Your task to perform on an android device: Clear all items from cart on newegg. Search for "duracell triple a" on newegg, select the first entry, and add it to the cart. Image 0: 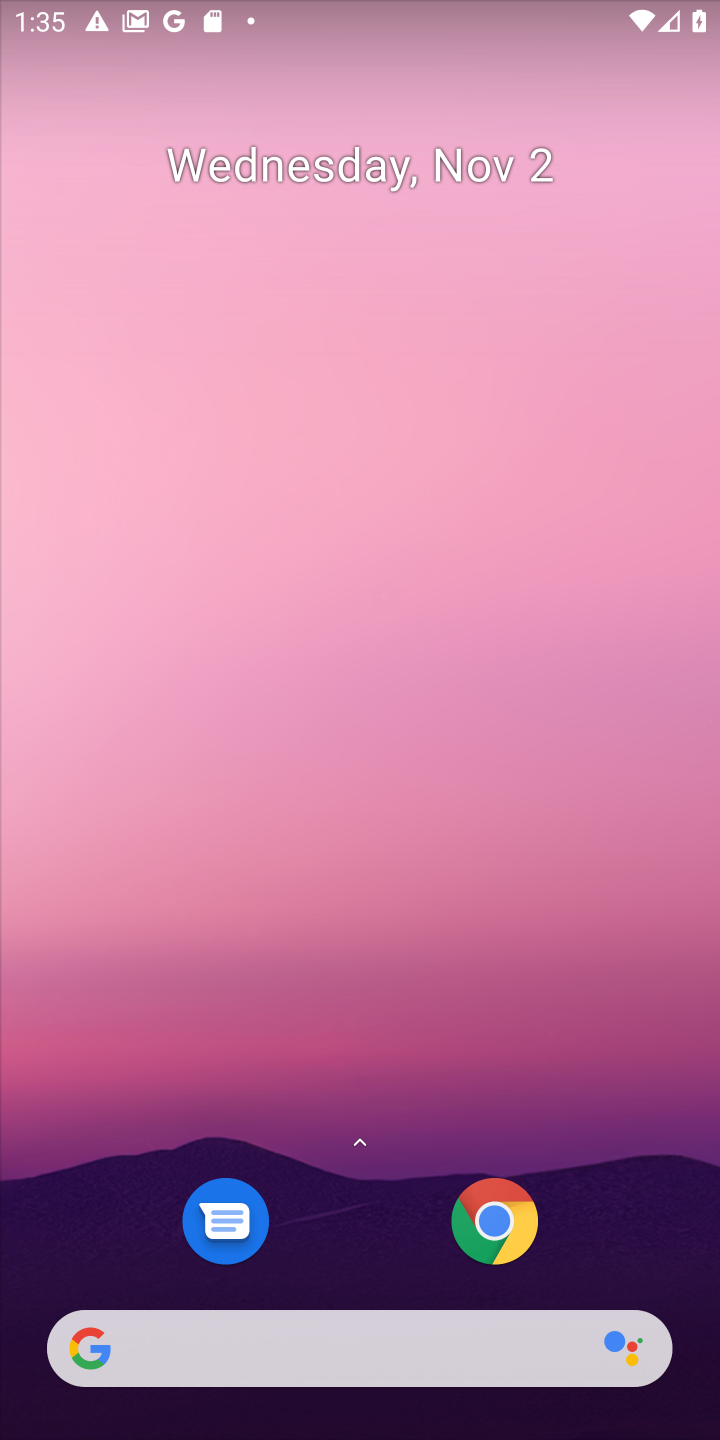
Step 0: click (186, 1357)
Your task to perform on an android device: Clear all items from cart on newegg. Search for "duracell triple a" on newegg, select the first entry, and add it to the cart. Image 1: 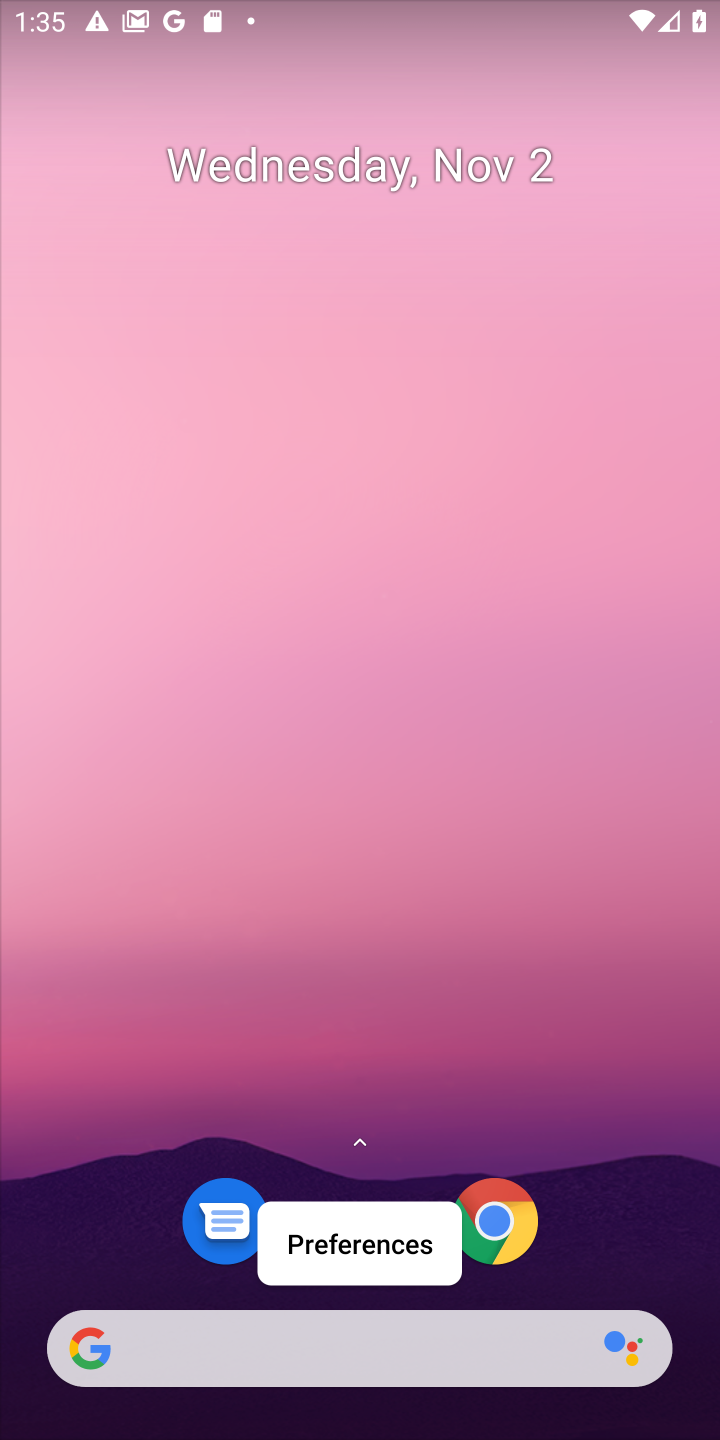
Step 1: click (354, 1342)
Your task to perform on an android device: Clear all items from cart on newegg. Search for "duracell triple a" on newegg, select the first entry, and add it to the cart. Image 2: 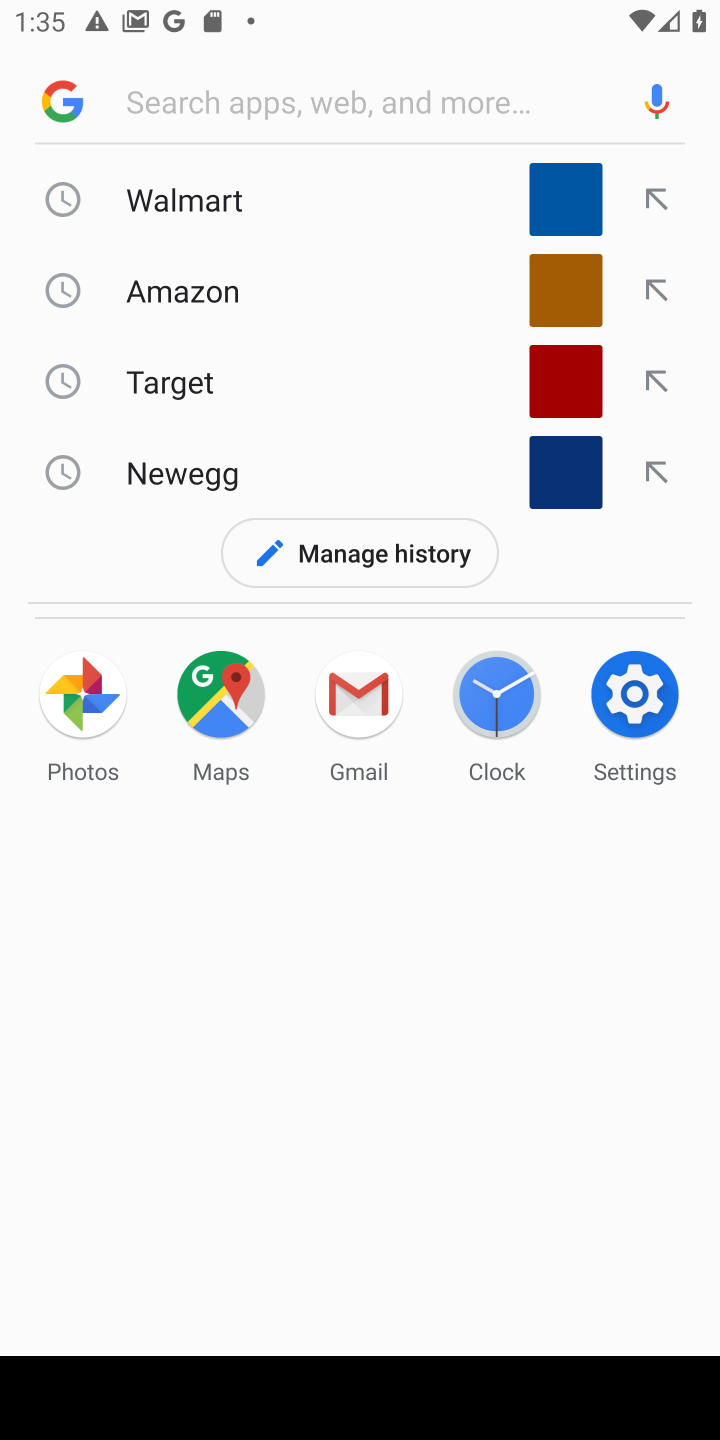
Step 2: click (354, 1342)
Your task to perform on an android device: Clear all items from cart on newegg. Search for "duracell triple a" on newegg, select the first entry, and add it to the cart. Image 3: 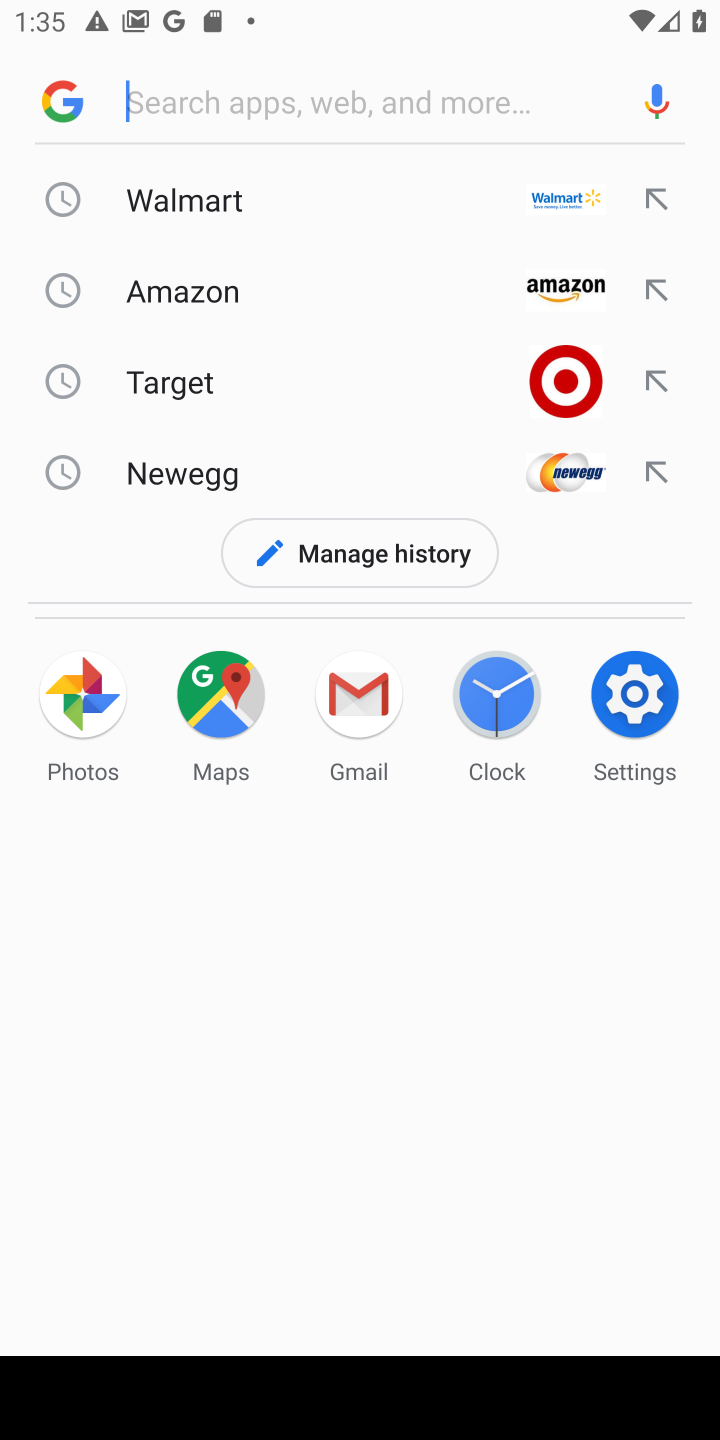
Step 3: click (216, 486)
Your task to perform on an android device: Clear all items from cart on newegg. Search for "duracell triple a" on newegg, select the first entry, and add it to the cart. Image 4: 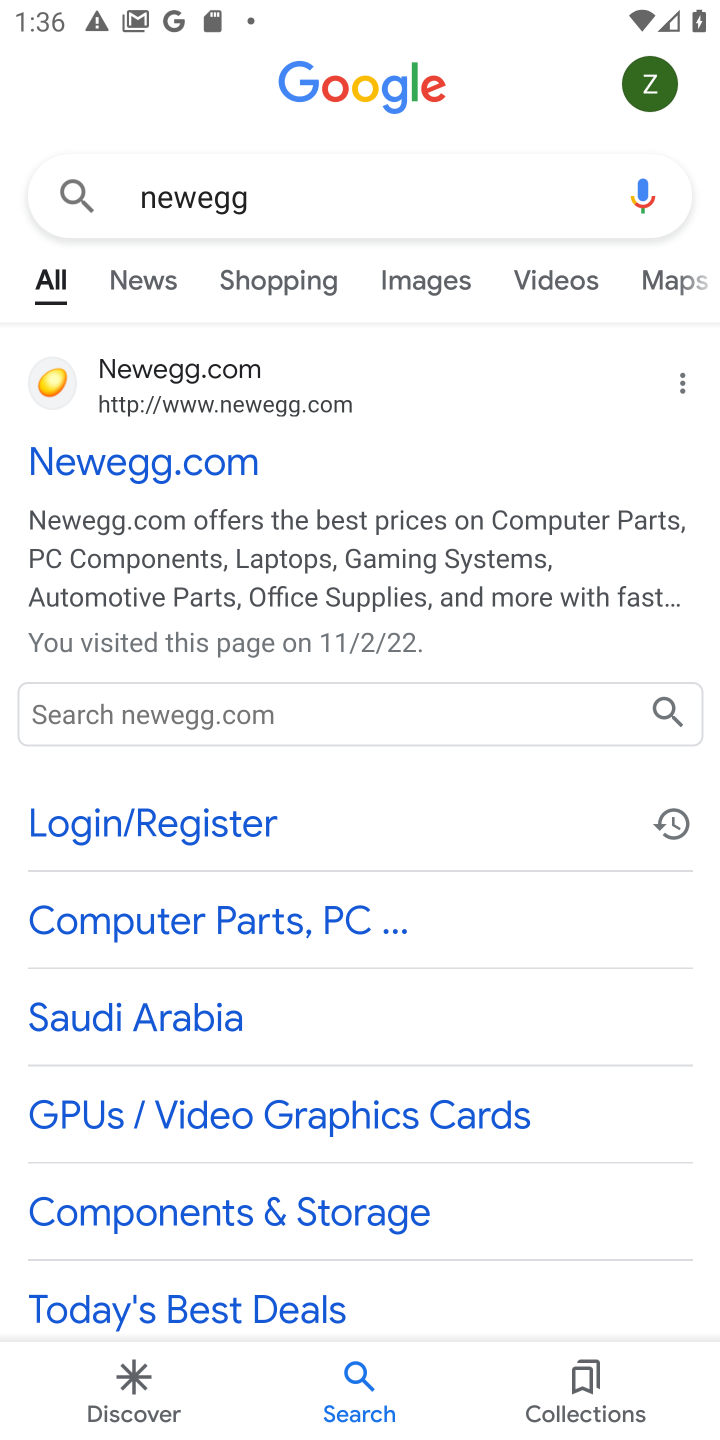
Step 4: click (203, 451)
Your task to perform on an android device: Clear all items from cart on newegg. Search for "duracell triple a" on newegg, select the first entry, and add it to the cart. Image 5: 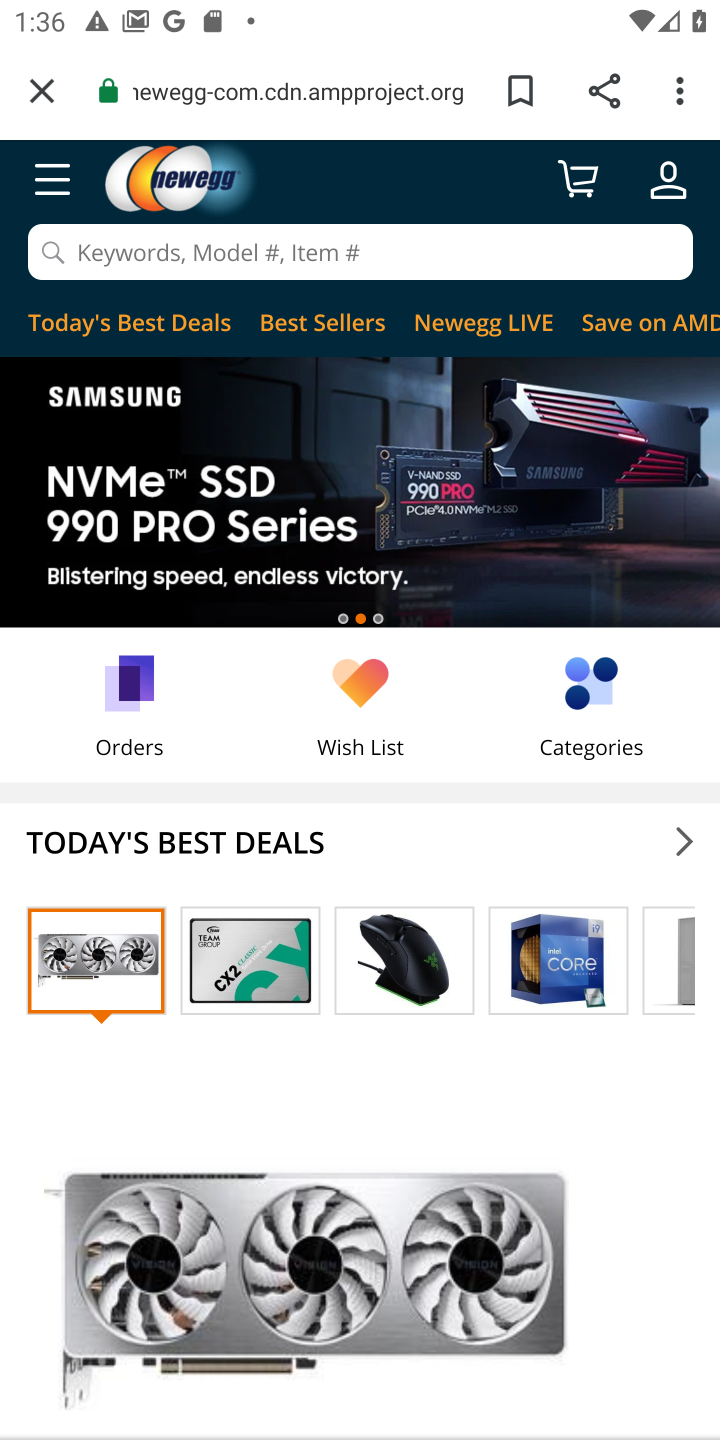
Step 5: click (334, 247)
Your task to perform on an android device: Clear all items from cart on newegg. Search for "duracell triple a" on newegg, select the first entry, and add it to the cart. Image 6: 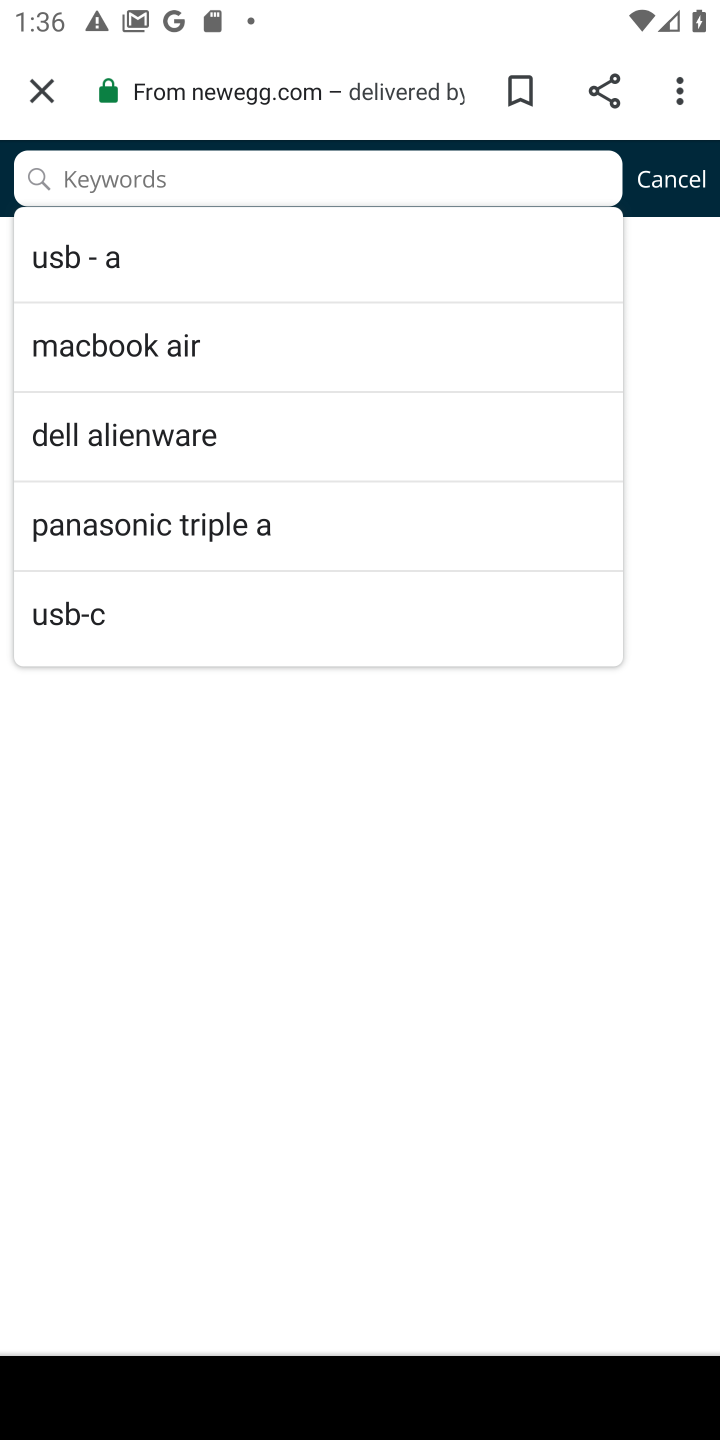
Step 6: type "duracell triple a"
Your task to perform on an android device: Clear all items from cart on newegg. Search for "duracell triple a" on newegg, select the first entry, and add it to the cart. Image 7: 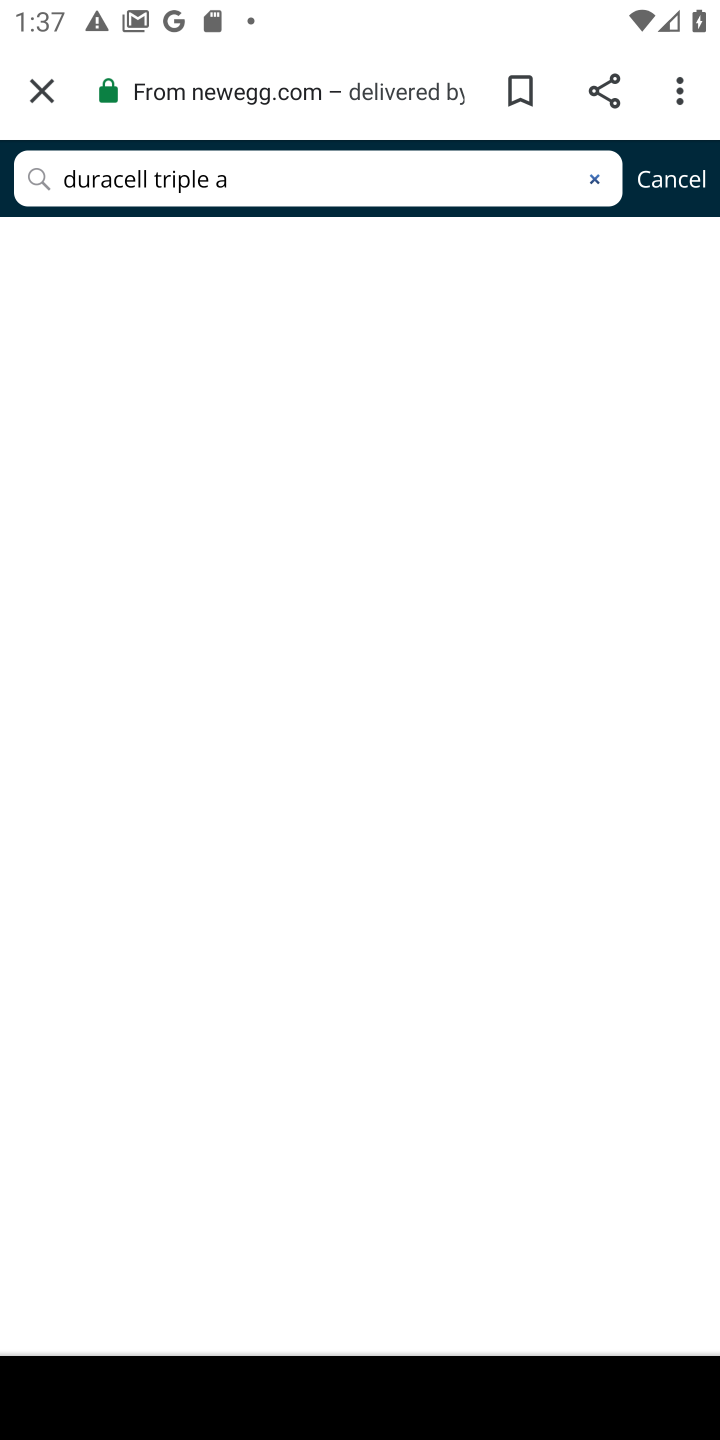
Step 7: task complete